Your task to perform on an android device: When is my next meeting? Image 0: 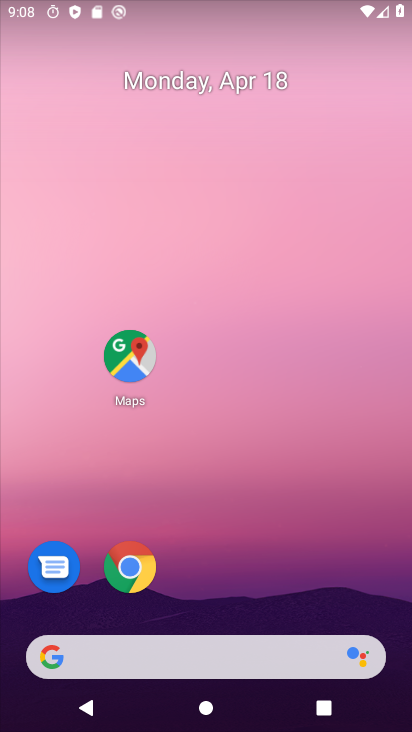
Step 0: drag from (296, 675) to (361, 238)
Your task to perform on an android device: When is my next meeting? Image 1: 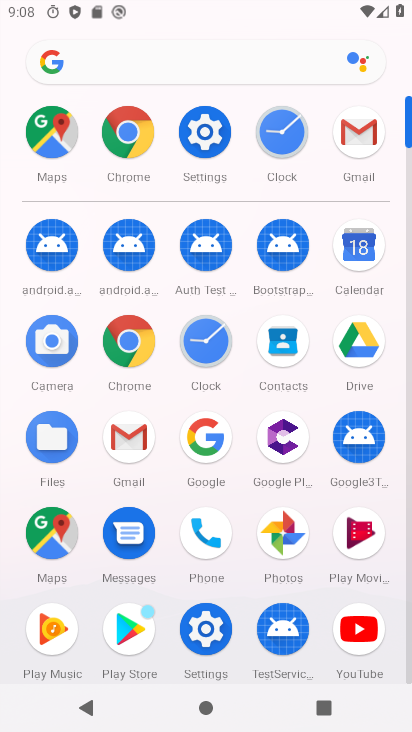
Step 1: click (355, 243)
Your task to perform on an android device: When is my next meeting? Image 2: 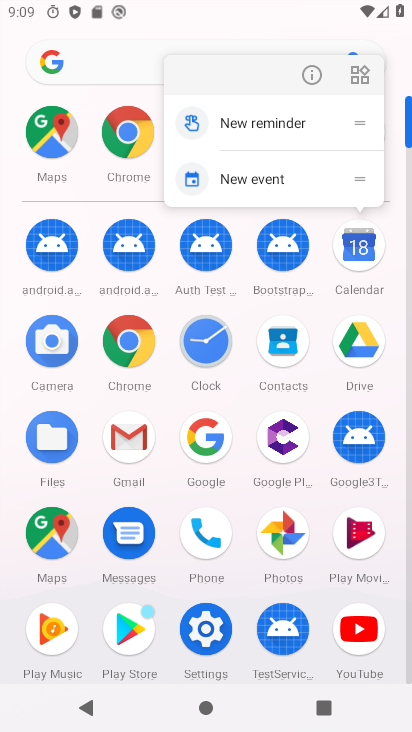
Step 2: click (357, 268)
Your task to perform on an android device: When is my next meeting? Image 3: 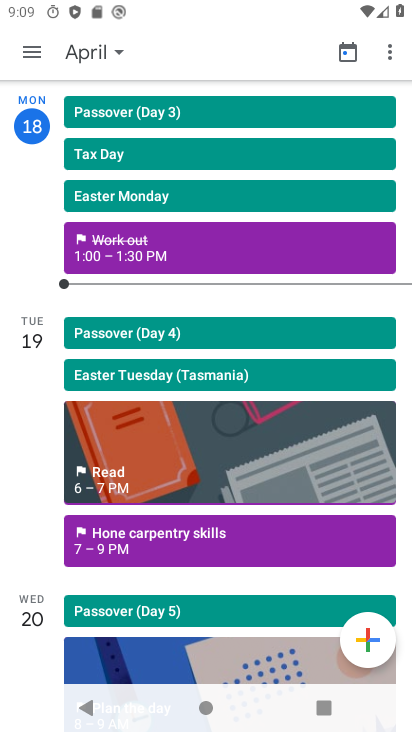
Step 3: click (31, 64)
Your task to perform on an android device: When is my next meeting? Image 4: 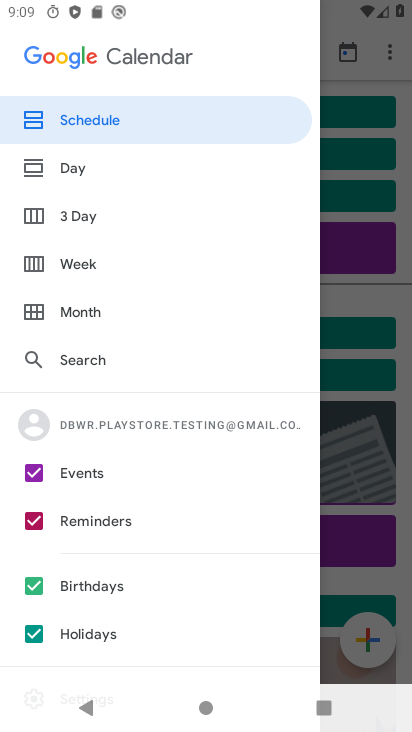
Step 4: click (75, 126)
Your task to perform on an android device: When is my next meeting? Image 5: 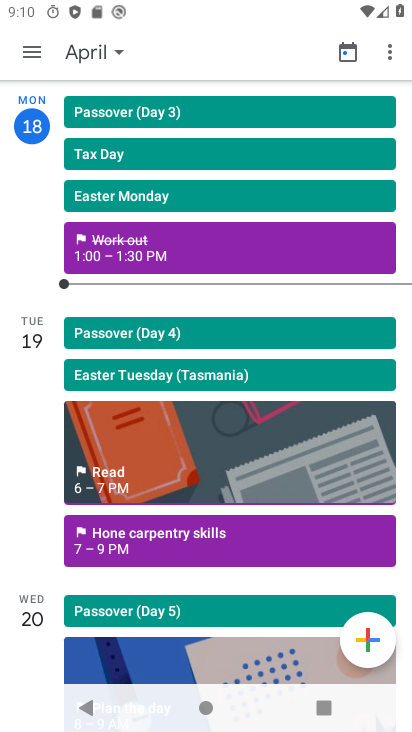
Step 5: task complete